Your task to perform on an android device: clear history in the chrome app Image 0: 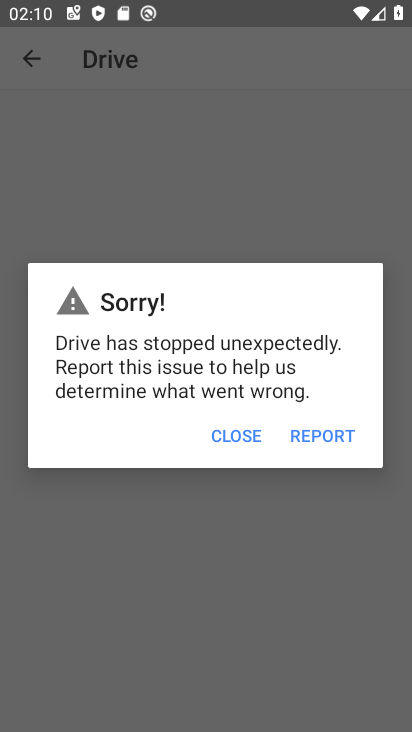
Step 0: press home button
Your task to perform on an android device: clear history in the chrome app Image 1: 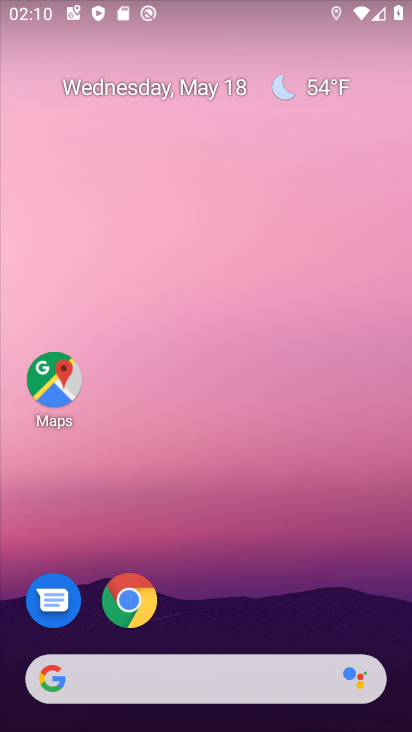
Step 1: drag from (218, 643) to (273, 221)
Your task to perform on an android device: clear history in the chrome app Image 2: 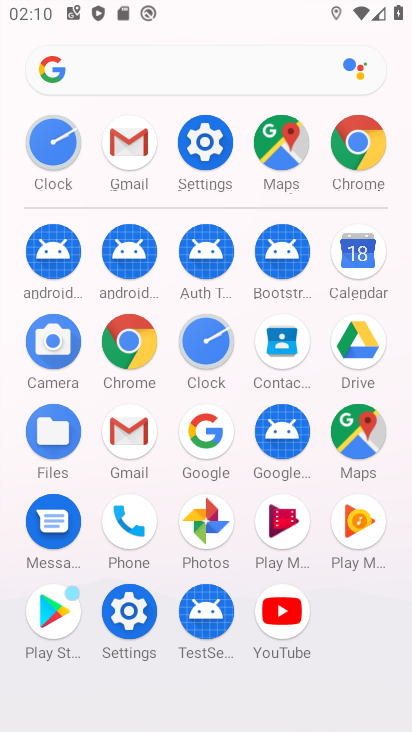
Step 2: click (199, 142)
Your task to perform on an android device: clear history in the chrome app Image 3: 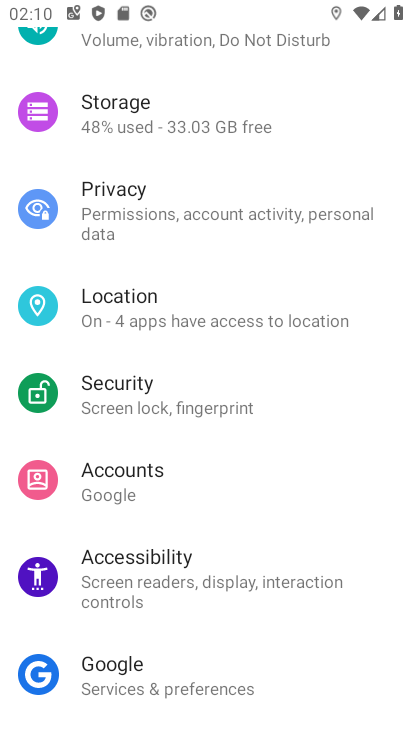
Step 3: press home button
Your task to perform on an android device: clear history in the chrome app Image 4: 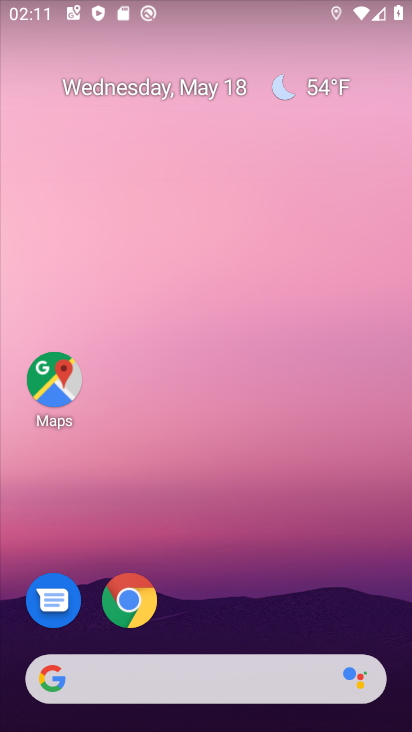
Step 4: click (136, 599)
Your task to perform on an android device: clear history in the chrome app Image 5: 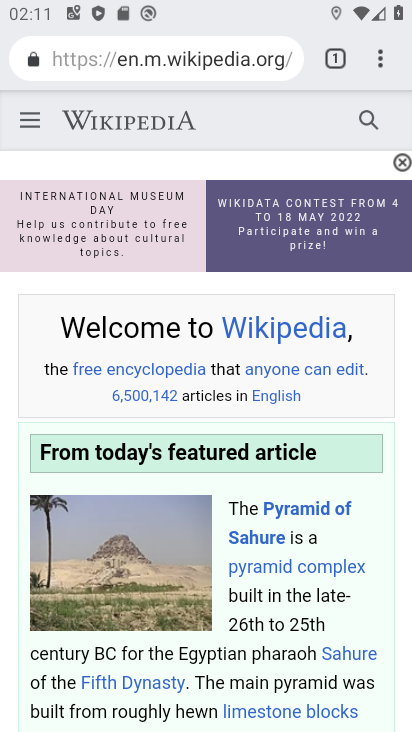
Step 5: click (376, 64)
Your task to perform on an android device: clear history in the chrome app Image 6: 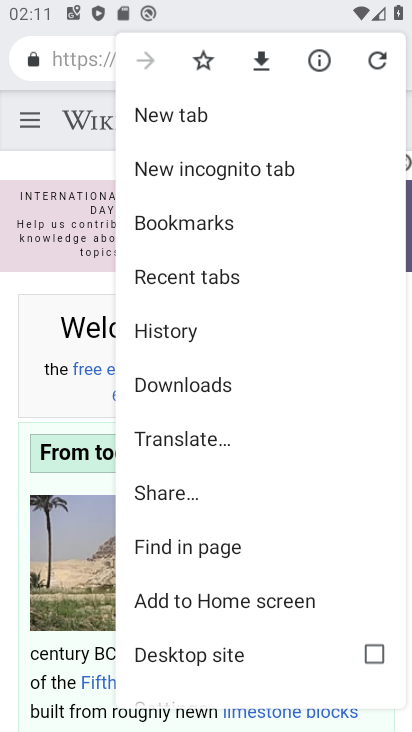
Step 6: click (172, 333)
Your task to perform on an android device: clear history in the chrome app Image 7: 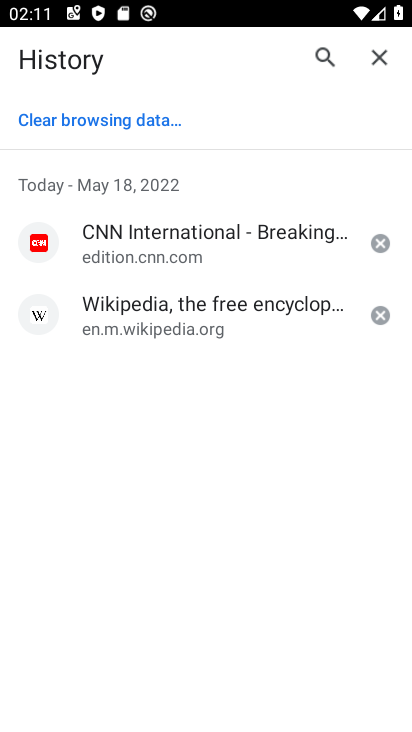
Step 7: click (123, 188)
Your task to perform on an android device: clear history in the chrome app Image 8: 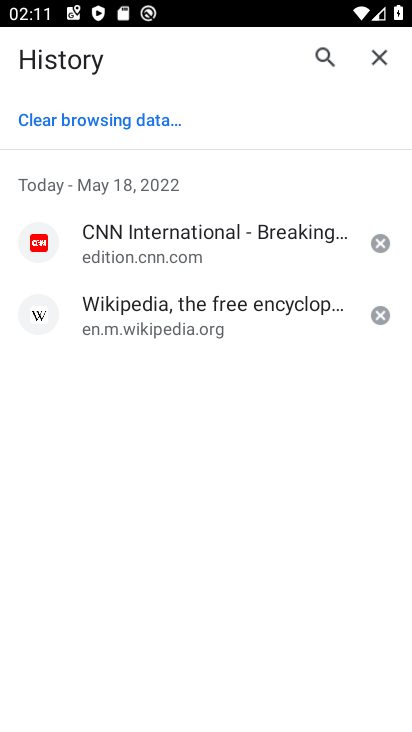
Step 8: click (92, 125)
Your task to perform on an android device: clear history in the chrome app Image 9: 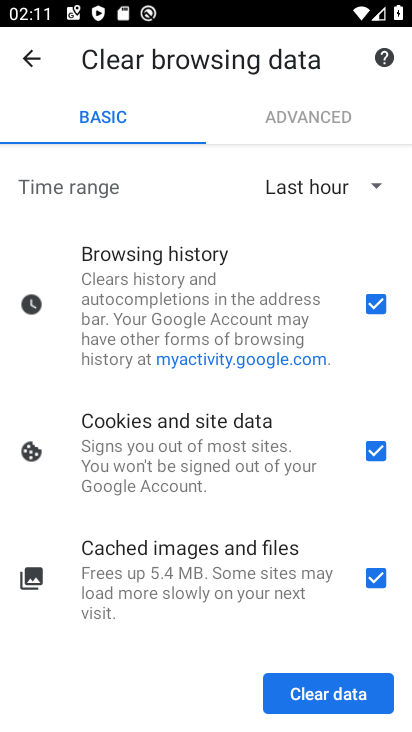
Step 9: click (342, 689)
Your task to perform on an android device: clear history in the chrome app Image 10: 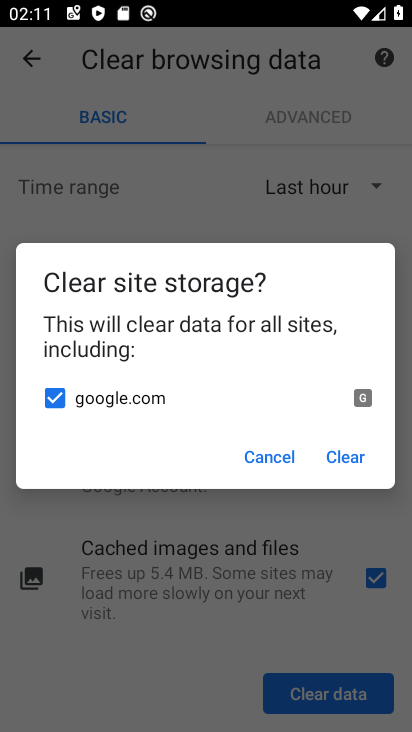
Step 10: click (352, 459)
Your task to perform on an android device: clear history in the chrome app Image 11: 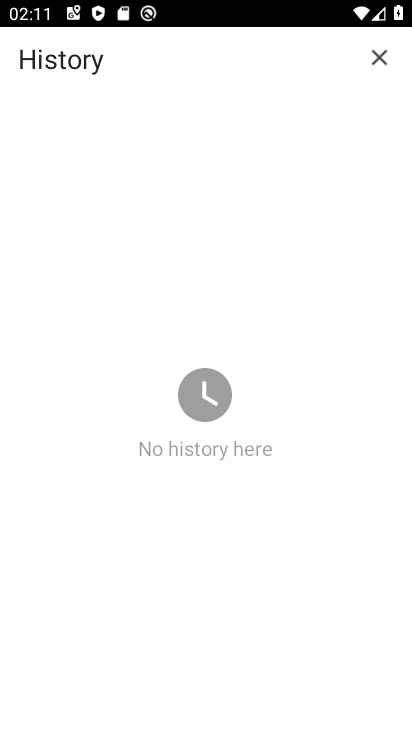
Step 11: task complete